Your task to perform on an android device: change the clock display to analog Image 0: 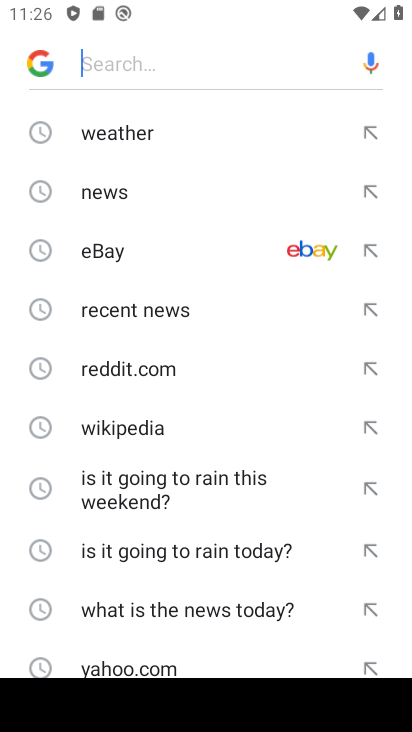
Step 0: press home button
Your task to perform on an android device: change the clock display to analog Image 1: 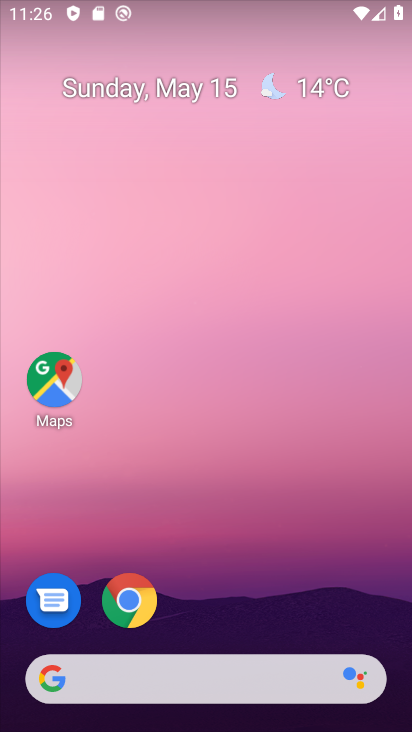
Step 1: drag from (378, 622) to (324, 33)
Your task to perform on an android device: change the clock display to analog Image 2: 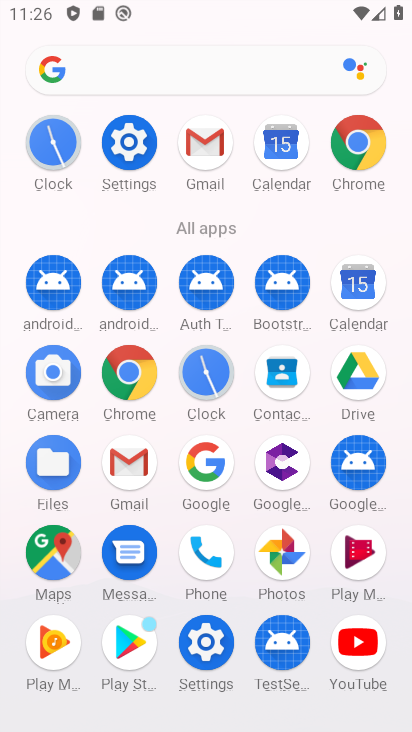
Step 2: click (205, 370)
Your task to perform on an android device: change the clock display to analog Image 3: 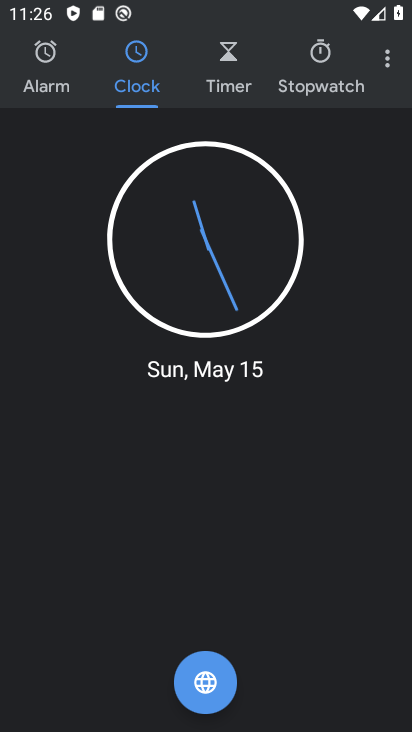
Step 3: click (390, 59)
Your task to perform on an android device: change the clock display to analog Image 4: 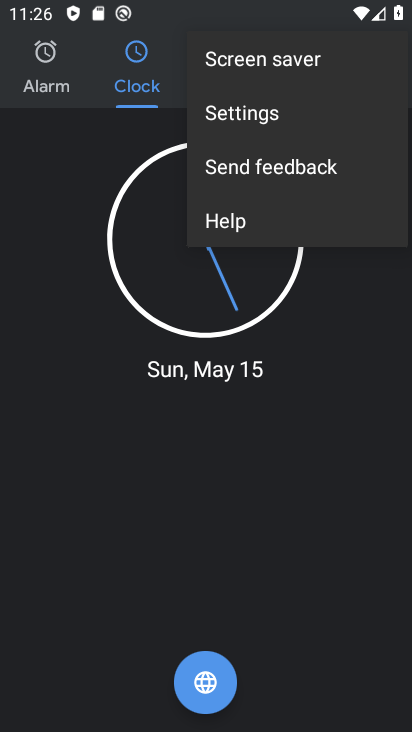
Step 4: click (220, 106)
Your task to perform on an android device: change the clock display to analog Image 5: 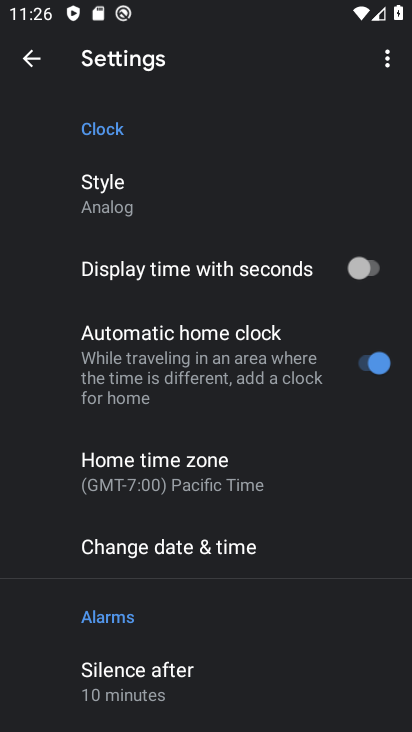
Step 5: task complete